Your task to perform on an android device: move a message to another label in the gmail app Image 0: 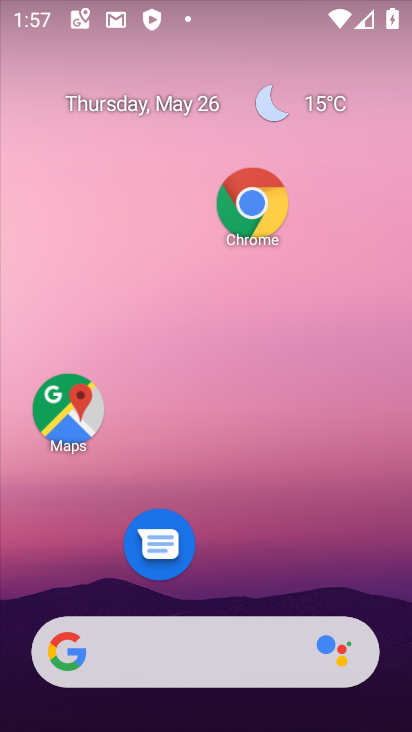
Step 0: drag from (162, 704) to (173, 57)
Your task to perform on an android device: move a message to another label in the gmail app Image 1: 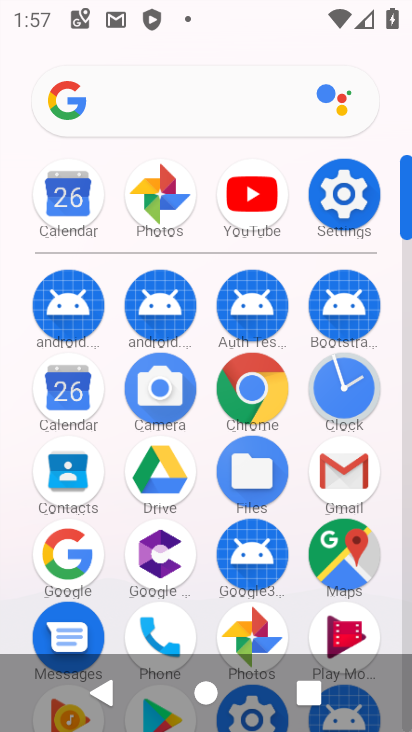
Step 1: click (347, 459)
Your task to perform on an android device: move a message to another label in the gmail app Image 2: 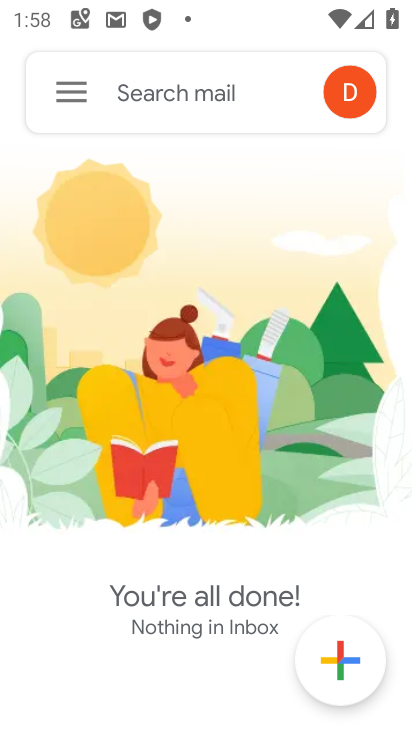
Step 2: task complete